Your task to perform on an android device: Open the phone app and click the voicemail tab. Image 0: 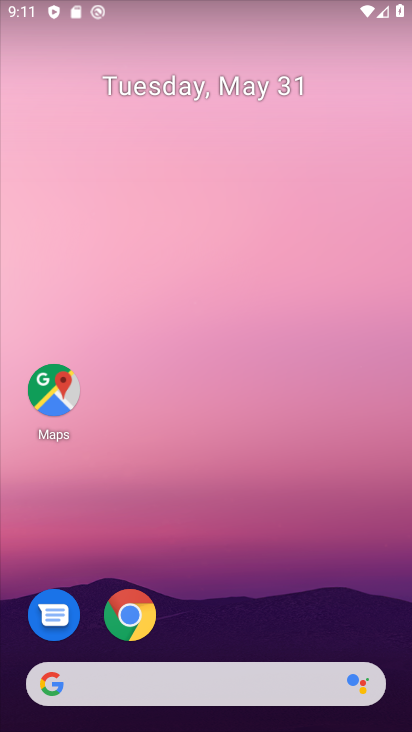
Step 0: drag from (299, 638) to (323, 220)
Your task to perform on an android device: Open the phone app and click the voicemail tab. Image 1: 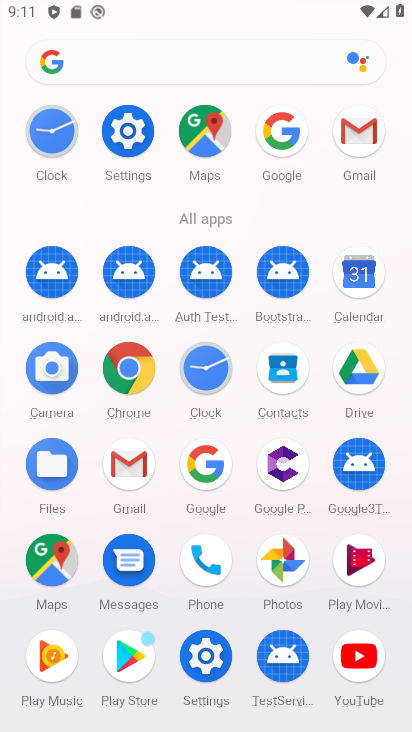
Step 1: click (200, 556)
Your task to perform on an android device: Open the phone app and click the voicemail tab. Image 2: 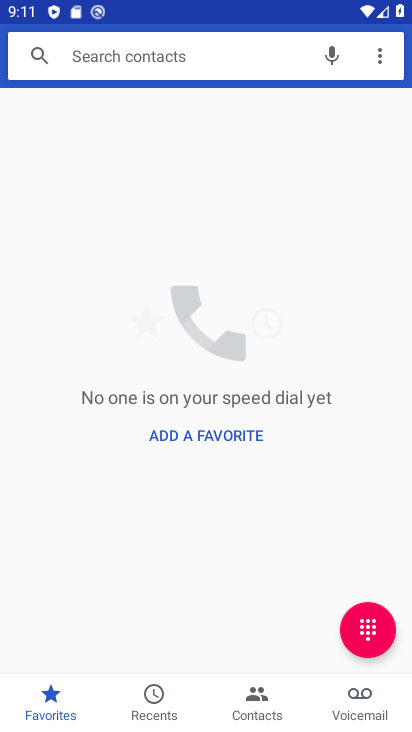
Step 2: click (355, 694)
Your task to perform on an android device: Open the phone app and click the voicemail tab. Image 3: 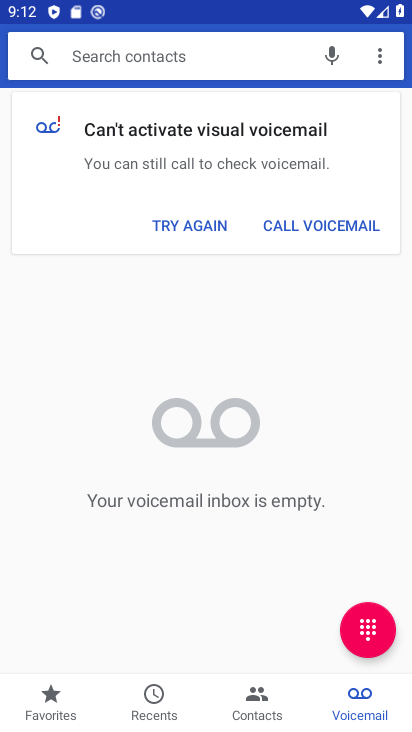
Step 3: task complete